Your task to perform on an android device: toggle sleep mode Image 0: 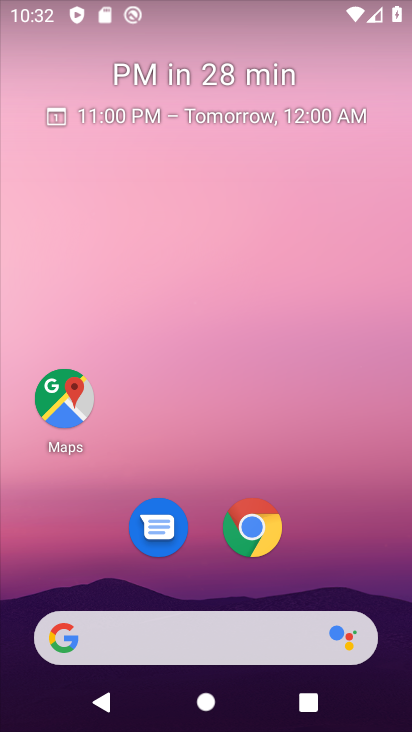
Step 0: drag from (230, 493) to (300, 105)
Your task to perform on an android device: toggle sleep mode Image 1: 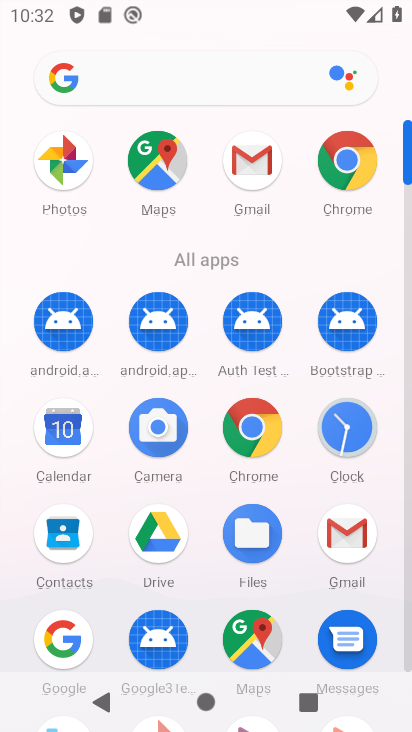
Step 1: drag from (249, 592) to (342, 133)
Your task to perform on an android device: toggle sleep mode Image 2: 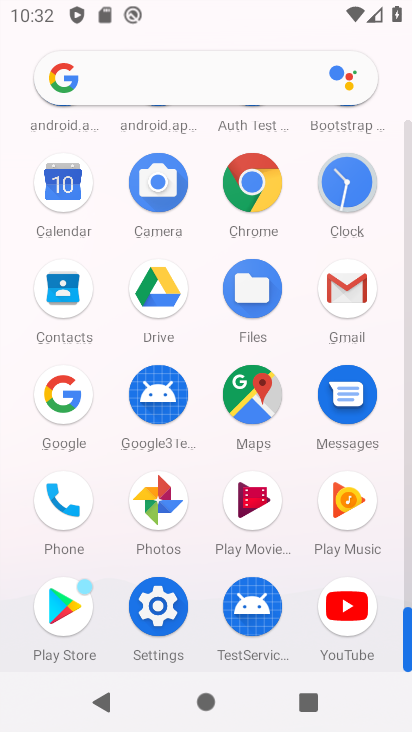
Step 2: click (140, 619)
Your task to perform on an android device: toggle sleep mode Image 3: 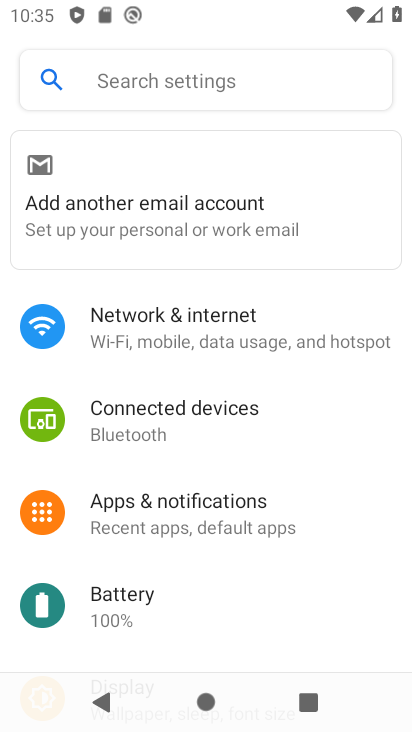
Step 3: click (144, 58)
Your task to perform on an android device: toggle sleep mode Image 4: 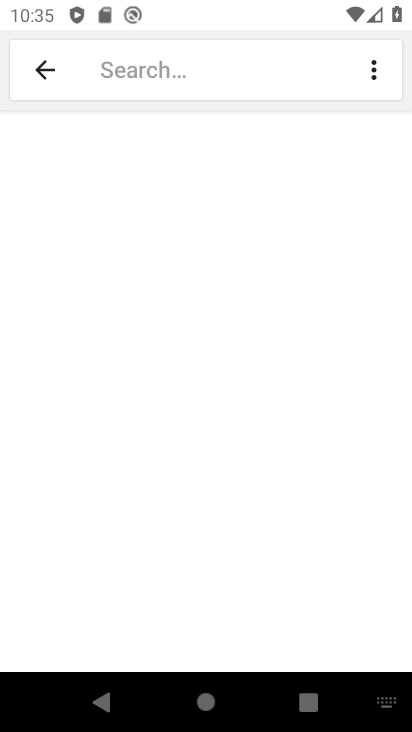
Step 4: type "sleep mode"
Your task to perform on an android device: toggle sleep mode Image 5: 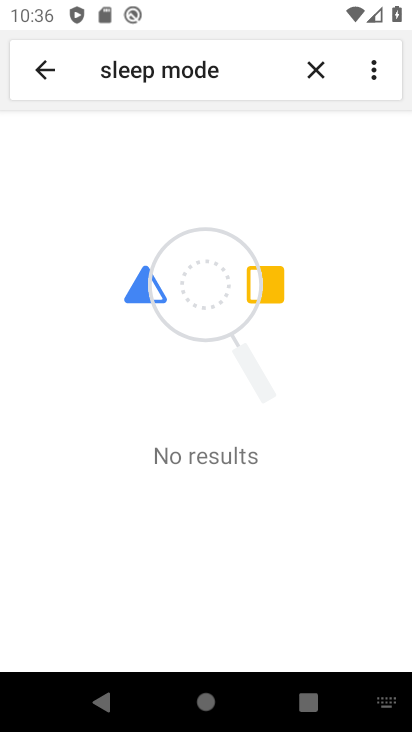
Step 5: task complete